Your task to perform on an android device: When is my next meeting? Image 0: 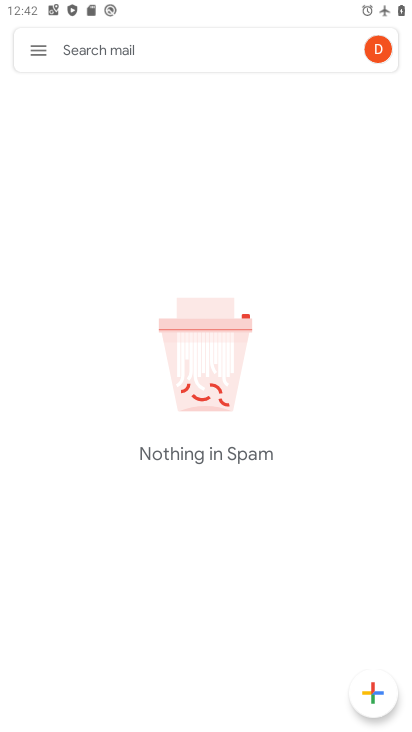
Step 0: press home button
Your task to perform on an android device: When is my next meeting? Image 1: 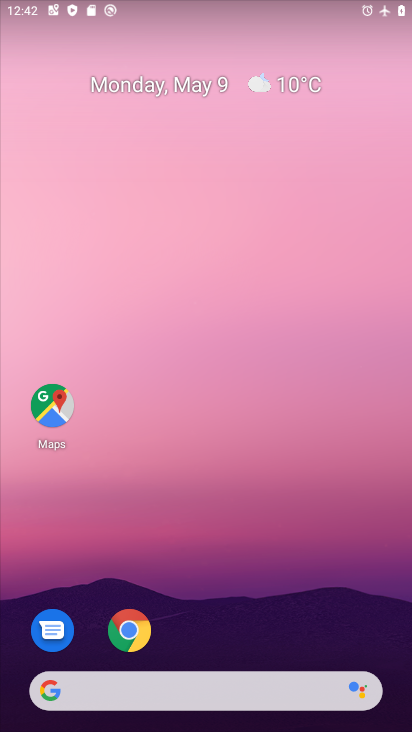
Step 1: drag from (322, 588) to (236, 27)
Your task to perform on an android device: When is my next meeting? Image 2: 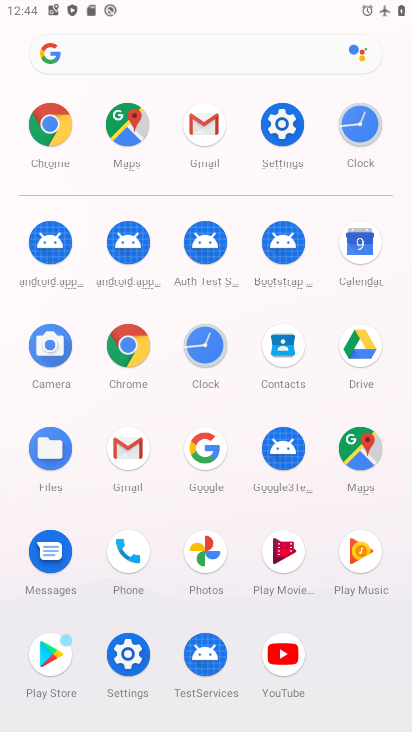
Step 2: click (365, 249)
Your task to perform on an android device: When is my next meeting? Image 3: 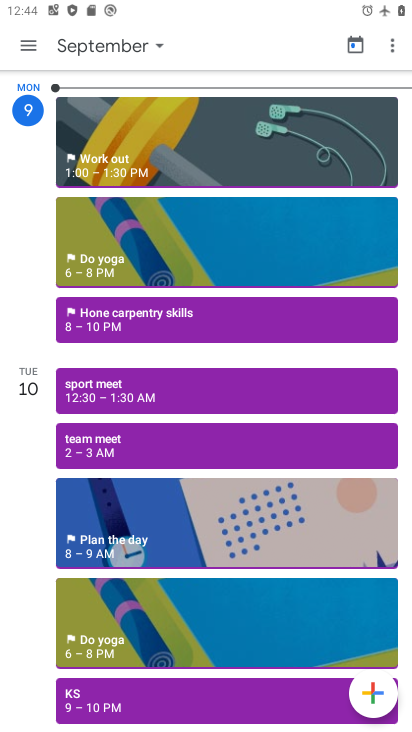
Step 3: click (32, 378)
Your task to perform on an android device: When is my next meeting? Image 4: 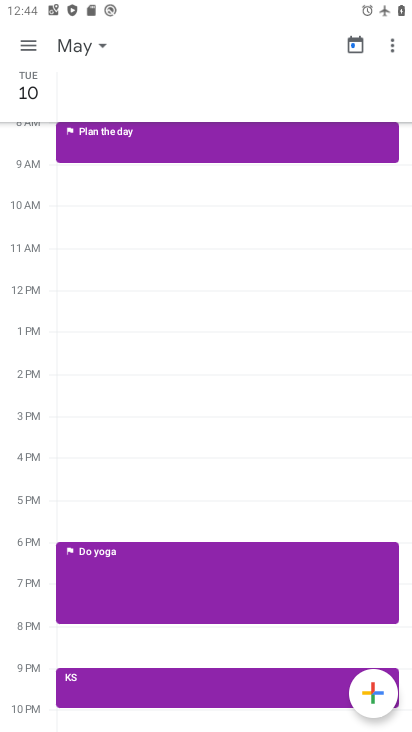
Step 4: task complete